Your task to perform on an android device: change the upload size in google photos Image 0: 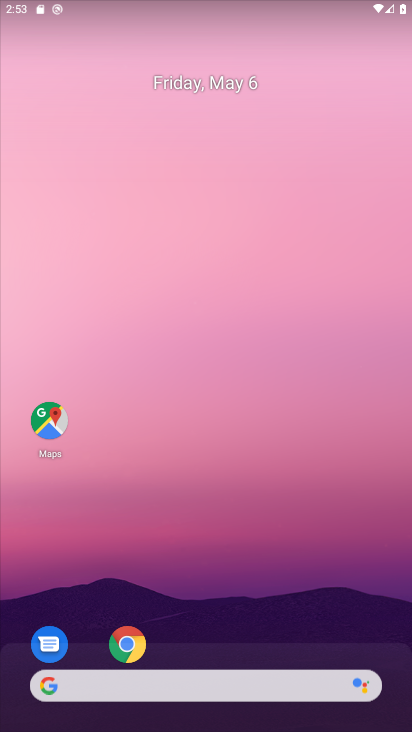
Step 0: drag from (214, 633) to (196, 21)
Your task to perform on an android device: change the upload size in google photos Image 1: 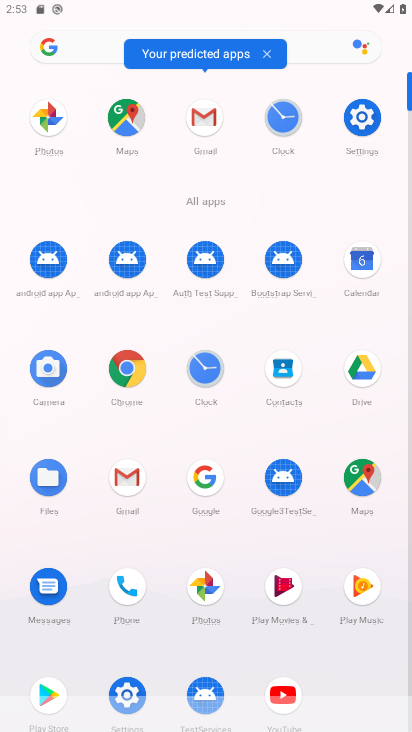
Step 1: click (48, 117)
Your task to perform on an android device: change the upload size in google photos Image 2: 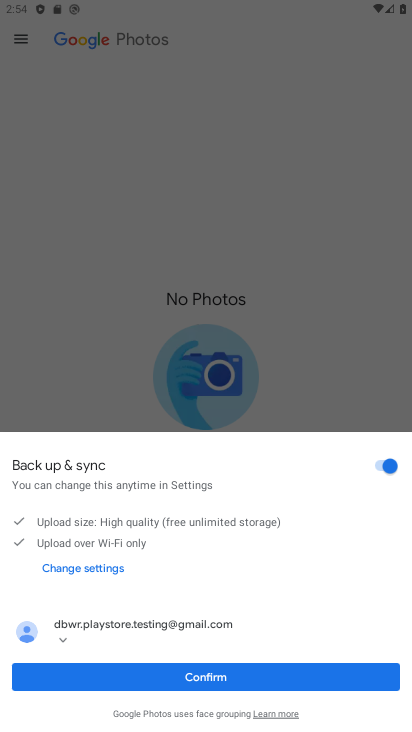
Step 2: click (203, 675)
Your task to perform on an android device: change the upload size in google photos Image 3: 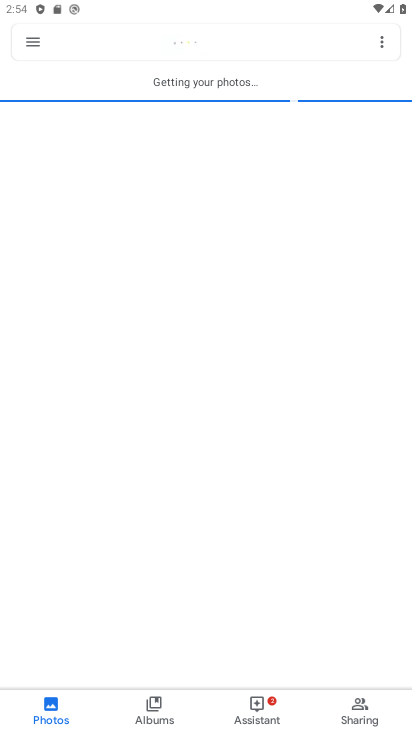
Step 3: click (35, 36)
Your task to perform on an android device: change the upload size in google photos Image 4: 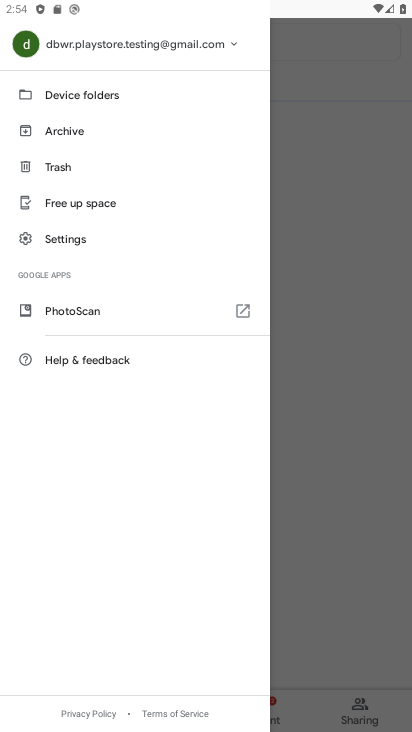
Step 4: click (53, 237)
Your task to perform on an android device: change the upload size in google photos Image 5: 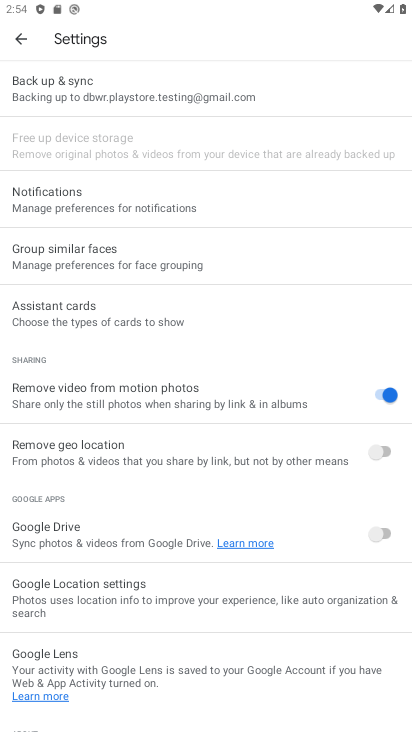
Step 5: click (79, 94)
Your task to perform on an android device: change the upload size in google photos Image 6: 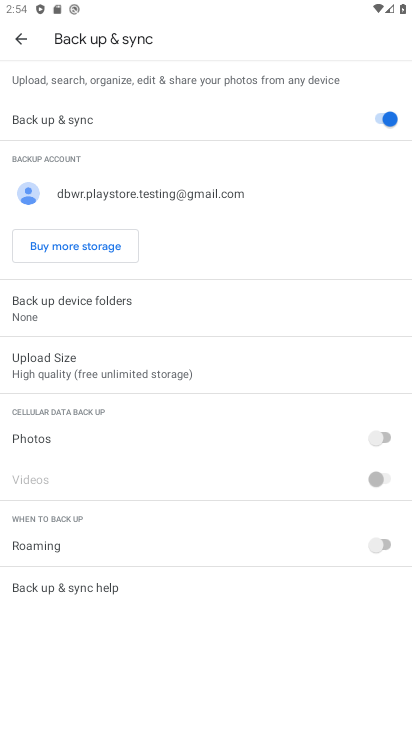
Step 6: click (122, 369)
Your task to perform on an android device: change the upload size in google photos Image 7: 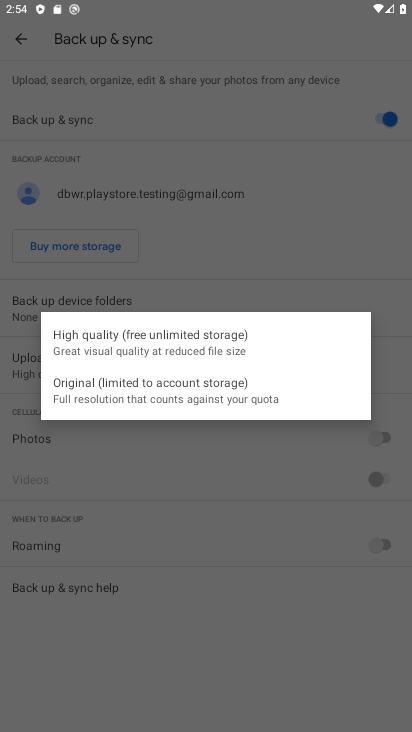
Step 7: click (122, 390)
Your task to perform on an android device: change the upload size in google photos Image 8: 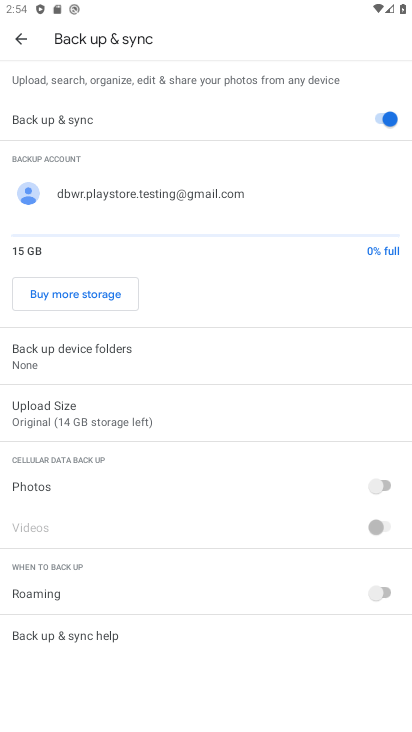
Step 8: task complete